Your task to perform on an android device: change notifications settings Image 0: 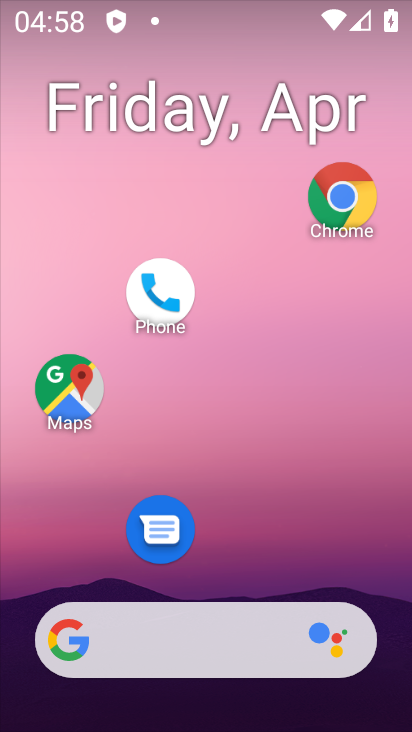
Step 0: click (338, 191)
Your task to perform on an android device: change notifications settings Image 1: 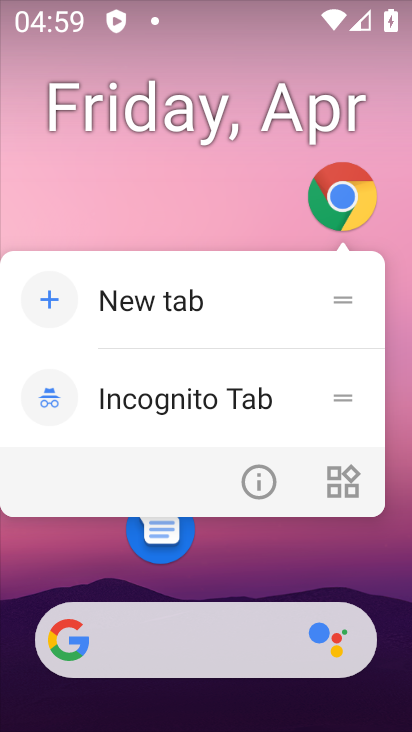
Step 1: click (262, 207)
Your task to perform on an android device: change notifications settings Image 2: 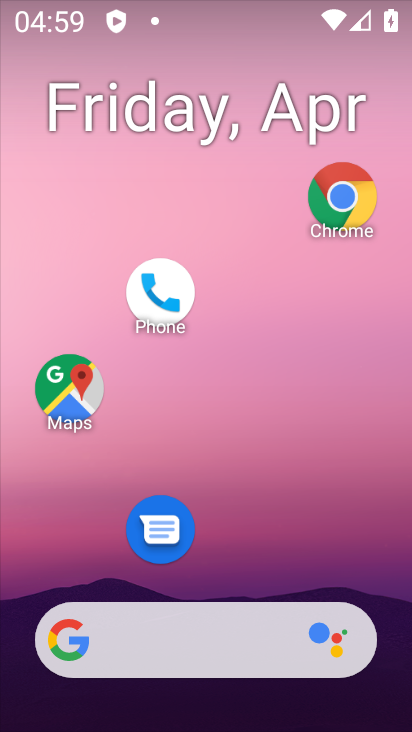
Step 2: drag from (235, 563) to (275, 43)
Your task to perform on an android device: change notifications settings Image 3: 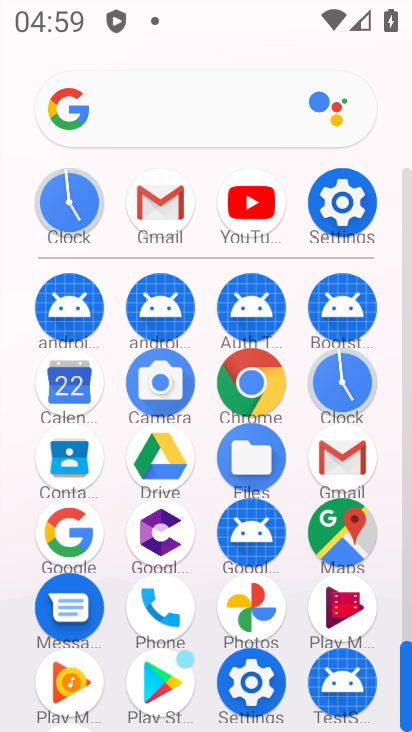
Step 3: click (247, 678)
Your task to perform on an android device: change notifications settings Image 4: 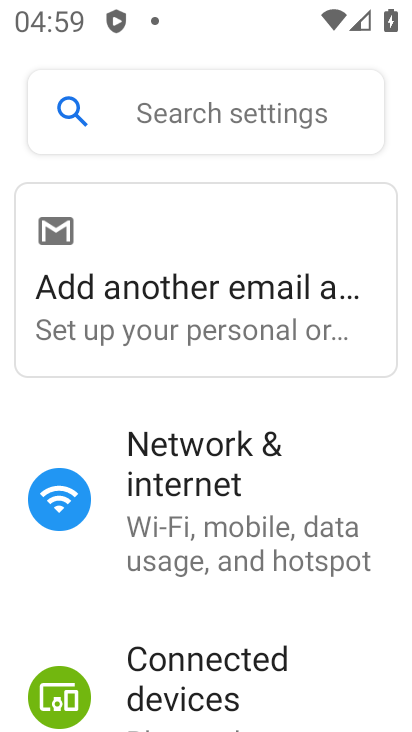
Step 4: drag from (233, 661) to (267, 250)
Your task to perform on an android device: change notifications settings Image 5: 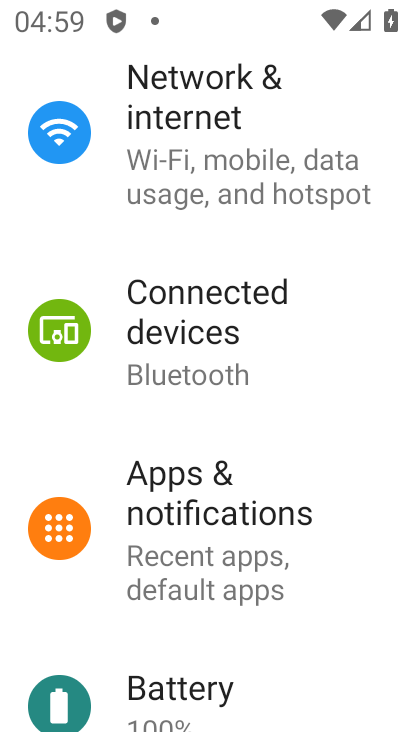
Step 5: click (266, 525)
Your task to perform on an android device: change notifications settings Image 6: 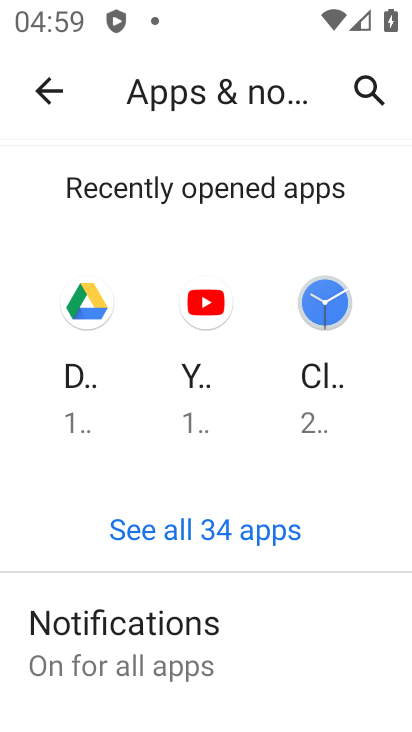
Step 6: click (226, 639)
Your task to perform on an android device: change notifications settings Image 7: 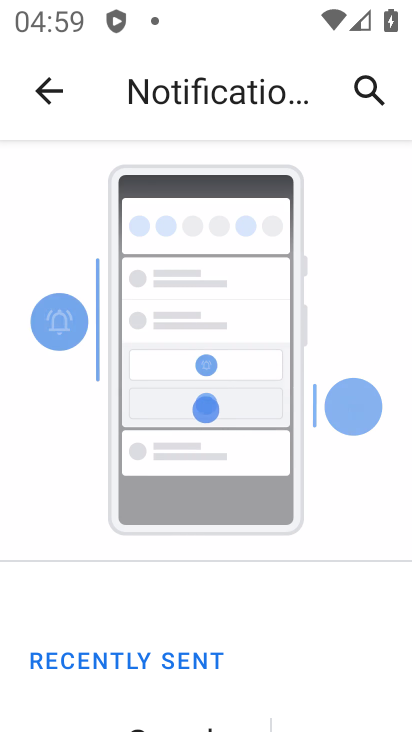
Step 7: drag from (263, 673) to (328, 160)
Your task to perform on an android device: change notifications settings Image 8: 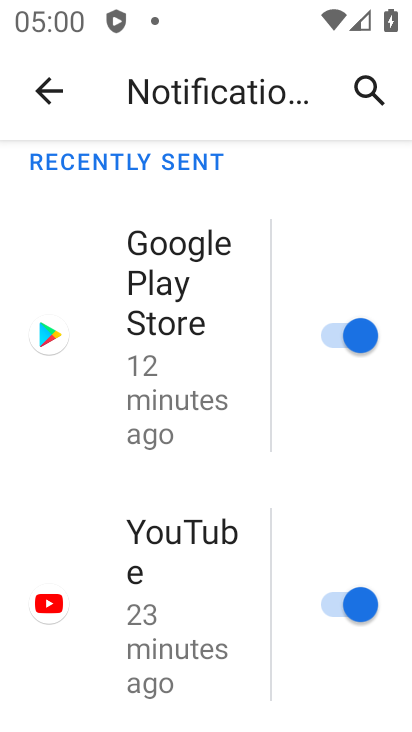
Step 8: drag from (253, 678) to (311, 201)
Your task to perform on an android device: change notifications settings Image 9: 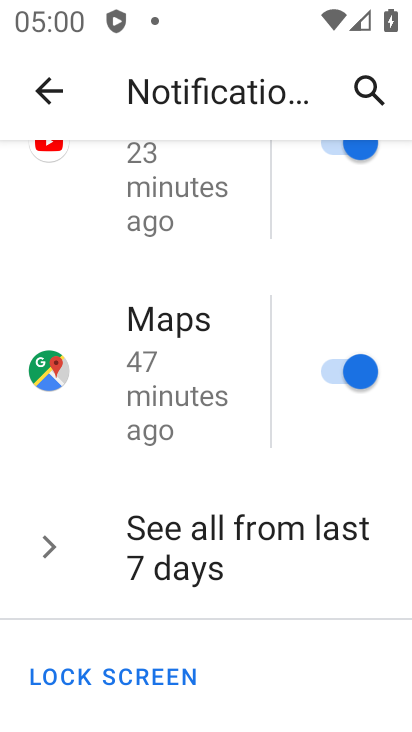
Step 9: drag from (227, 629) to (286, 169)
Your task to perform on an android device: change notifications settings Image 10: 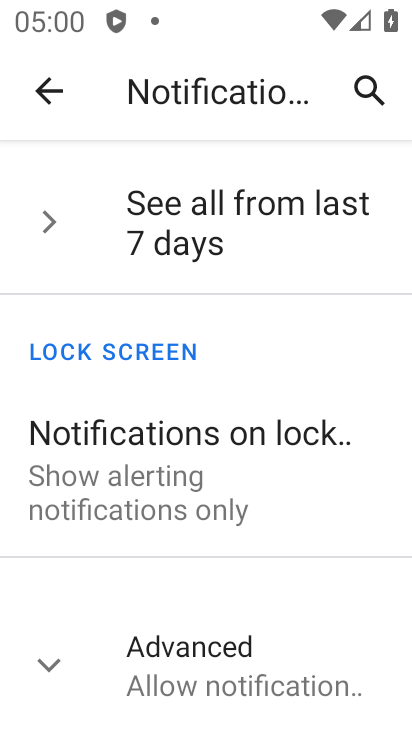
Step 10: drag from (264, 243) to (241, 672)
Your task to perform on an android device: change notifications settings Image 11: 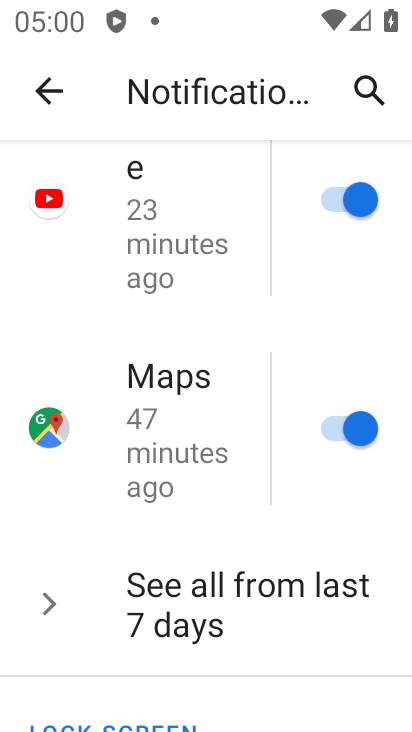
Step 11: click (338, 419)
Your task to perform on an android device: change notifications settings Image 12: 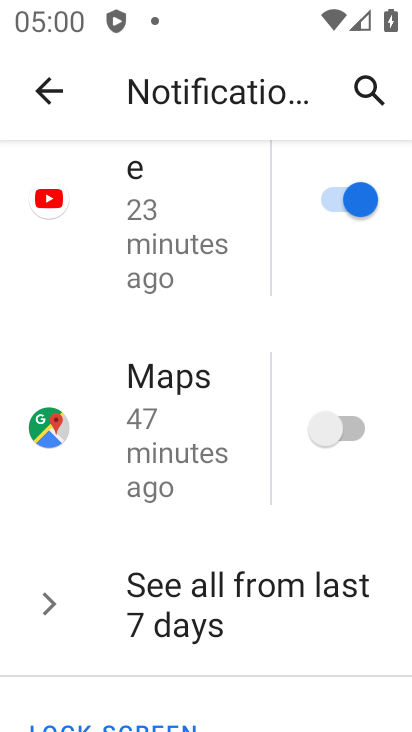
Step 12: click (349, 195)
Your task to perform on an android device: change notifications settings Image 13: 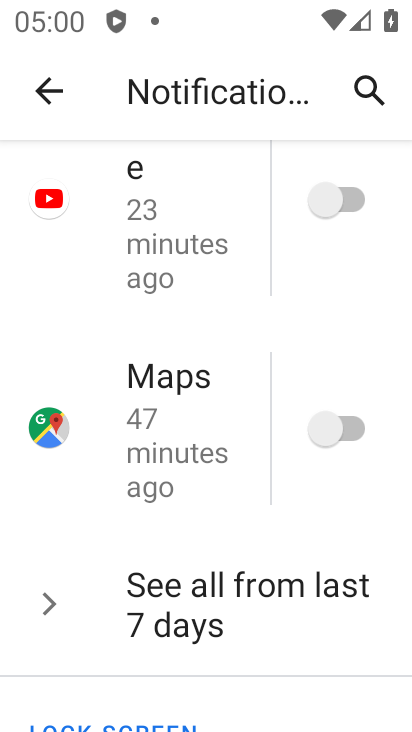
Step 13: drag from (188, 673) to (228, 316)
Your task to perform on an android device: change notifications settings Image 14: 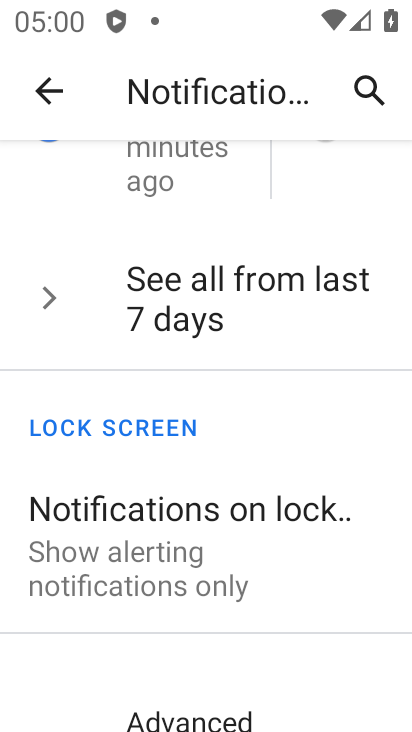
Step 14: click (201, 553)
Your task to perform on an android device: change notifications settings Image 15: 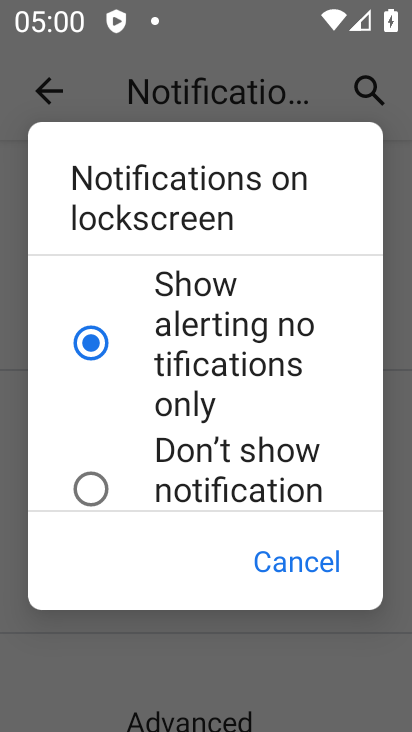
Step 15: click (89, 483)
Your task to perform on an android device: change notifications settings Image 16: 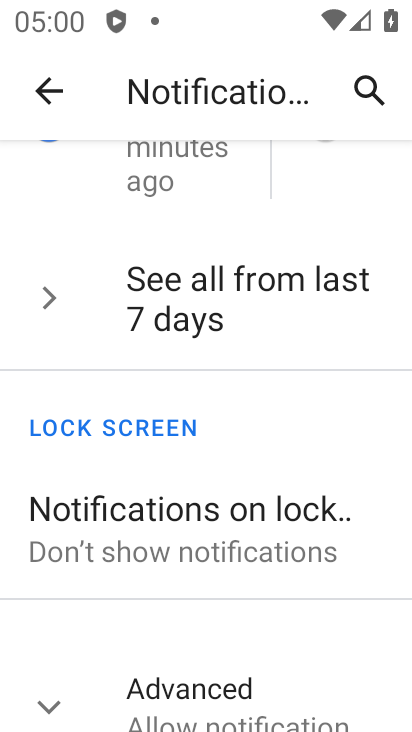
Step 16: task complete